Your task to perform on an android device: Search for razer blackwidow on bestbuy.com, select the first entry, add it to the cart, then select checkout. Image 0: 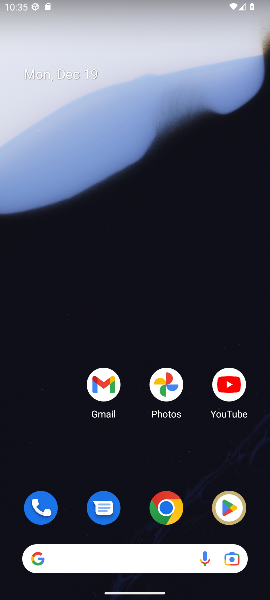
Step 0: click (171, 506)
Your task to perform on an android device: Search for razer blackwidow on bestbuy.com, select the first entry, add it to the cart, then select checkout. Image 1: 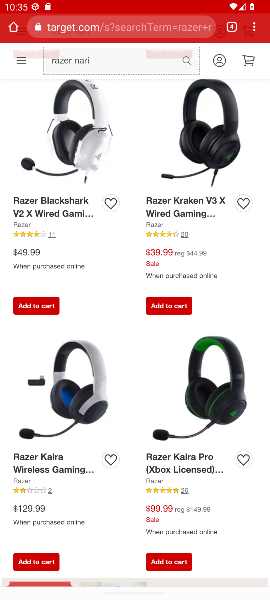
Step 1: click (171, 506)
Your task to perform on an android device: Search for razer blackwidow on bestbuy.com, select the first entry, add it to the cart, then select checkout. Image 2: 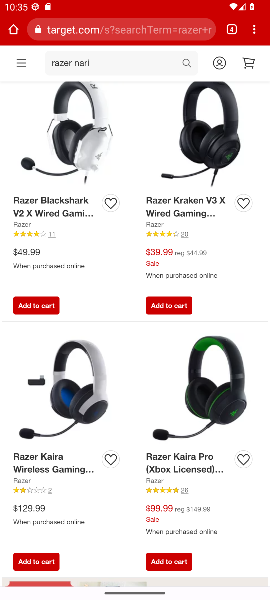
Step 2: click (231, 33)
Your task to perform on an android device: Search for razer blackwidow on bestbuy.com, select the first entry, add it to the cart, then select checkout. Image 3: 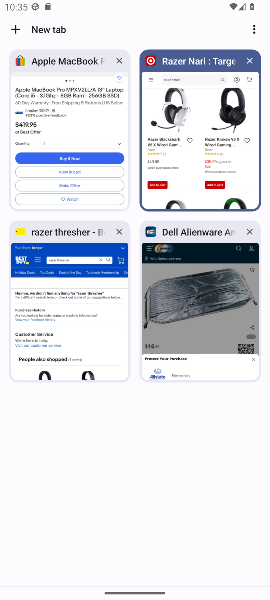
Step 3: click (60, 279)
Your task to perform on an android device: Search for razer blackwidow on bestbuy.com, select the first entry, add it to the cart, then select checkout. Image 4: 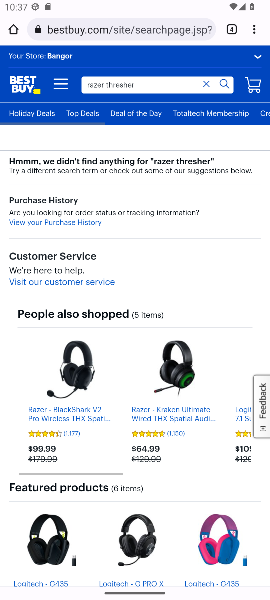
Step 4: click (206, 86)
Your task to perform on an android device: Search for razer blackwidow on bestbuy.com, select the first entry, add it to the cart, then select checkout. Image 5: 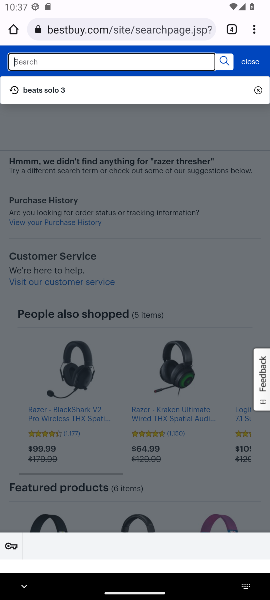
Step 5: type "razer blackwidow"
Your task to perform on an android device: Search for razer blackwidow on bestbuy.com, select the first entry, add it to the cart, then select checkout. Image 6: 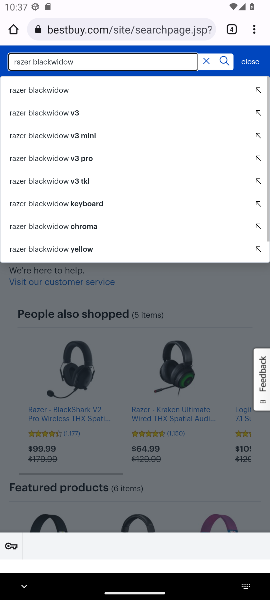
Step 6: click (62, 86)
Your task to perform on an android device: Search for razer blackwidow on bestbuy.com, select the first entry, add it to the cart, then select checkout. Image 7: 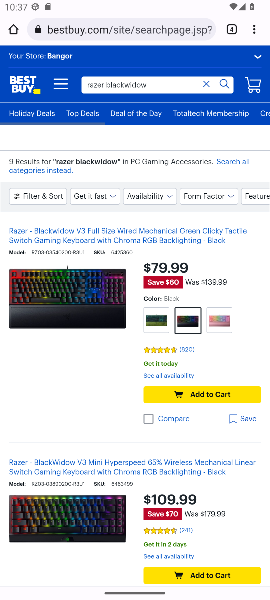
Step 7: click (198, 395)
Your task to perform on an android device: Search for razer blackwidow on bestbuy.com, select the first entry, add it to the cart, then select checkout. Image 8: 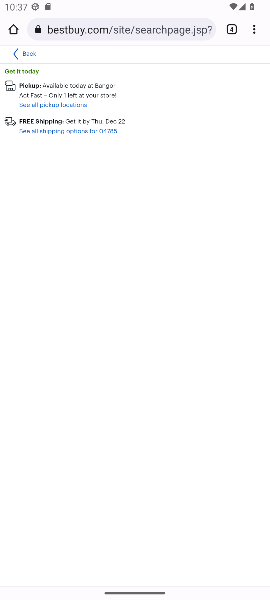
Step 8: click (23, 52)
Your task to perform on an android device: Search for razer blackwidow on bestbuy.com, select the first entry, add it to the cart, then select checkout. Image 9: 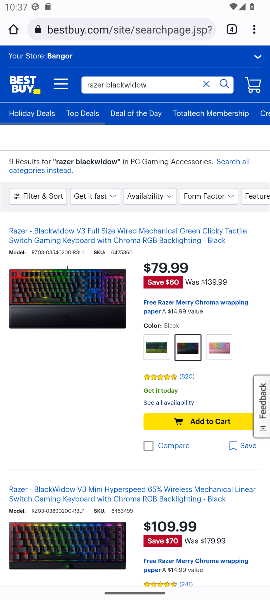
Step 9: click (169, 425)
Your task to perform on an android device: Search for razer blackwidow on bestbuy.com, select the first entry, add it to the cart, then select checkout. Image 10: 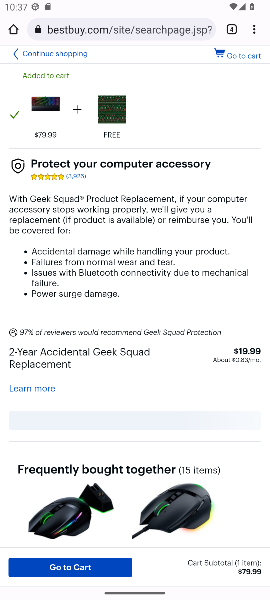
Step 10: task complete